Your task to perform on an android device: turn on the 12-hour format for clock Image 0: 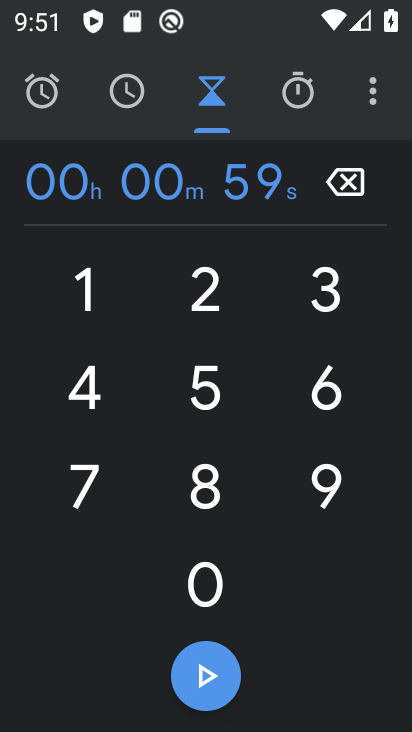
Step 0: click (380, 81)
Your task to perform on an android device: turn on the 12-hour format for clock Image 1: 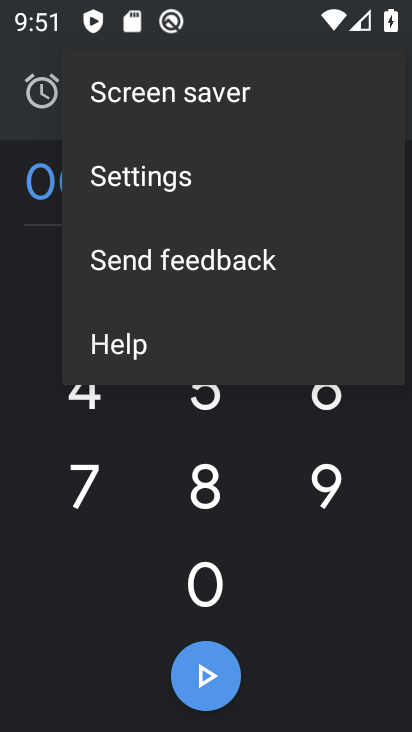
Step 1: click (282, 161)
Your task to perform on an android device: turn on the 12-hour format for clock Image 2: 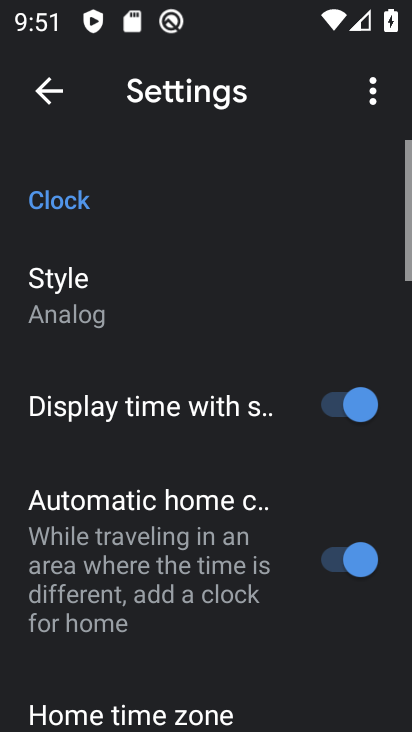
Step 2: drag from (306, 634) to (249, 155)
Your task to perform on an android device: turn on the 12-hour format for clock Image 3: 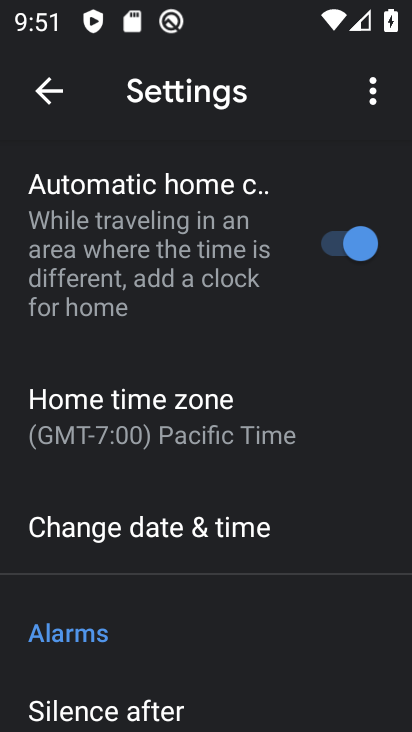
Step 3: click (256, 530)
Your task to perform on an android device: turn on the 12-hour format for clock Image 4: 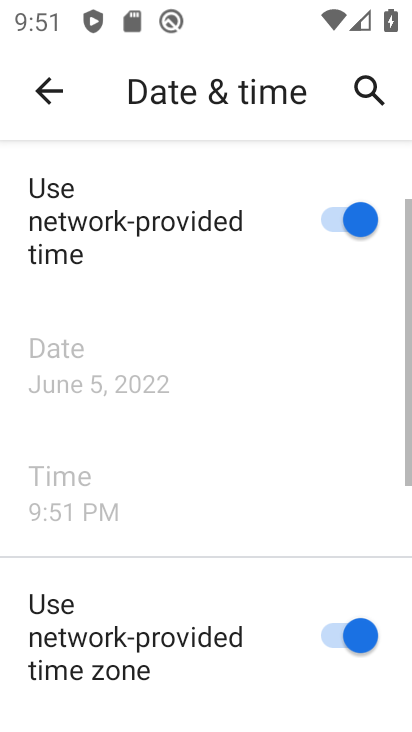
Step 4: task complete